Your task to perform on an android device: change the clock display to digital Image 0: 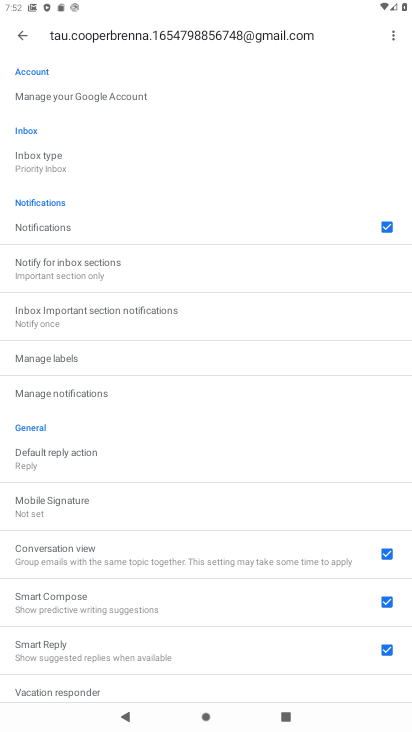
Step 0: press home button
Your task to perform on an android device: change the clock display to digital Image 1: 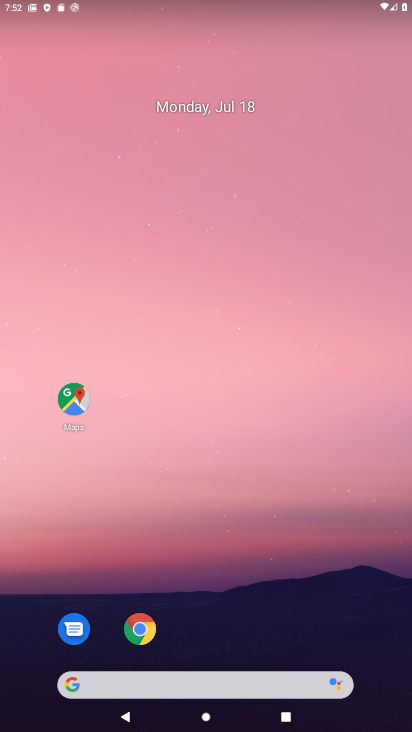
Step 1: drag from (293, 607) to (270, 179)
Your task to perform on an android device: change the clock display to digital Image 2: 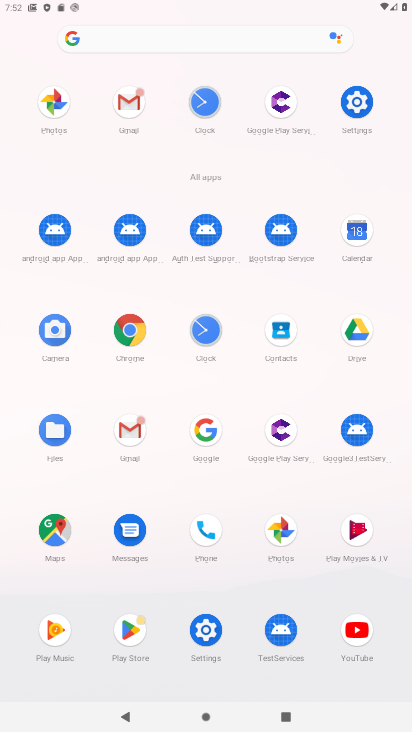
Step 2: click (207, 340)
Your task to perform on an android device: change the clock display to digital Image 3: 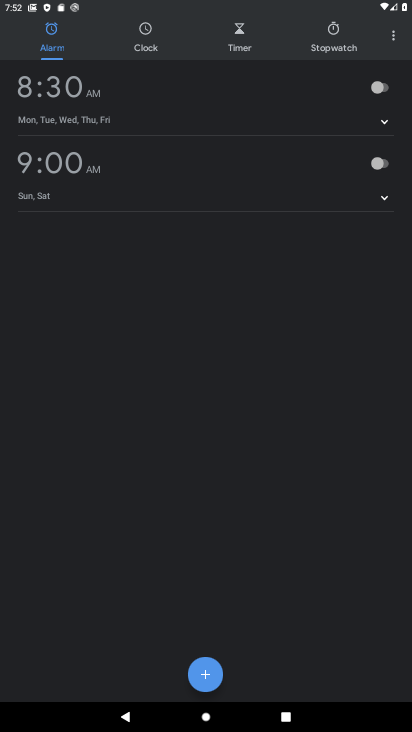
Step 3: click (402, 38)
Your task to perform on an android device: change the clock display to digital Image 4: 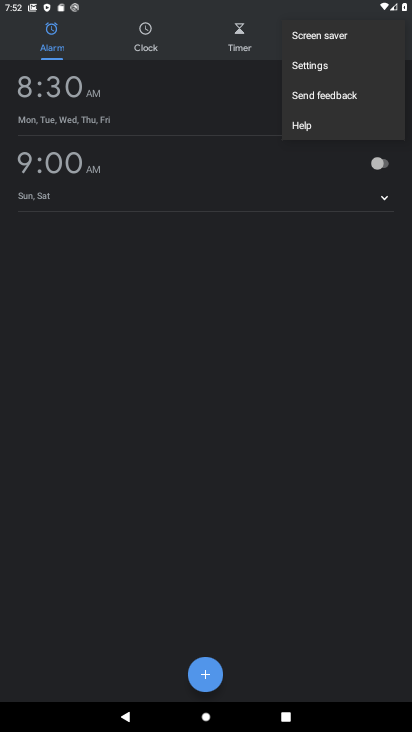
Step 4: click (326, 67)
Your task to perform on an android device: change the clock display to digital Image 5: 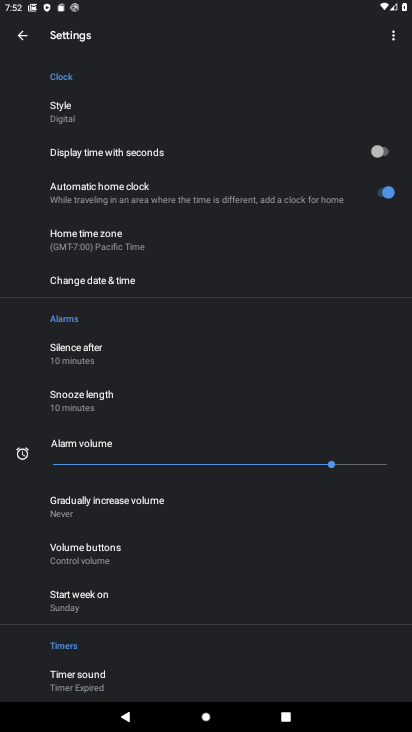
Step 5: task complete